Your task to perform on an android device: Open the map Image 0: 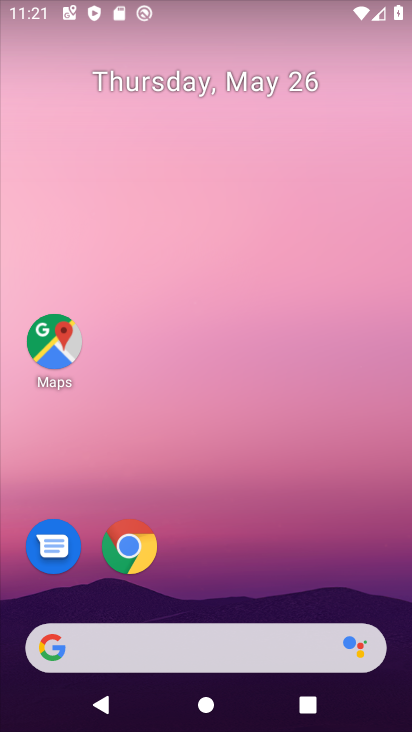
Step 0: click (58, 347)
Your task to perform on an android device: Open the map Image 1: 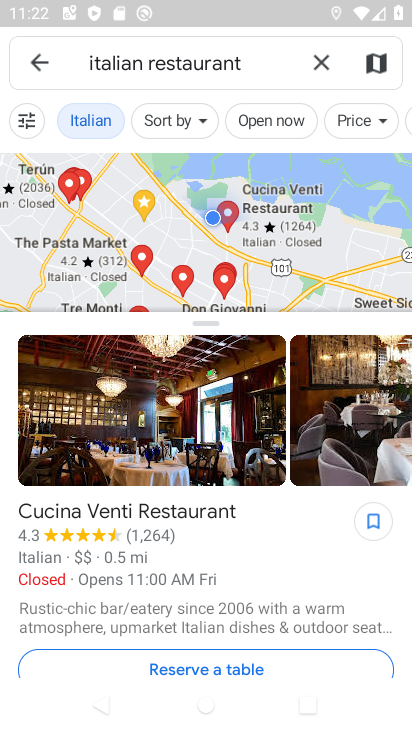
Step 1: task complete